Your task to perform on an android device: turn smart compose on in the gmail app Image 0: 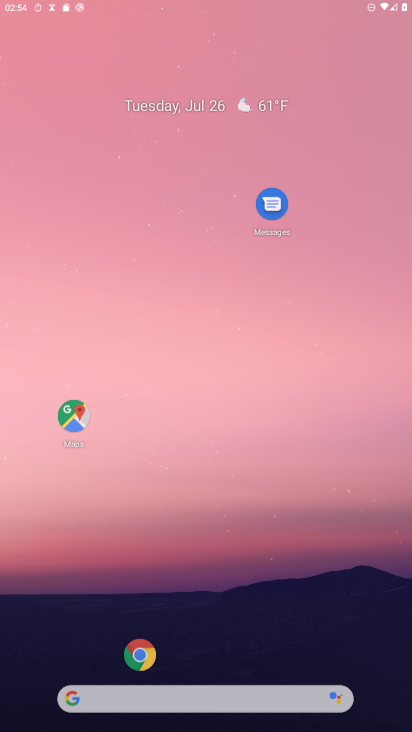
Step 0: press home button
Your task to perform on an android device: turn smart compose on in the gmail app Image 1: 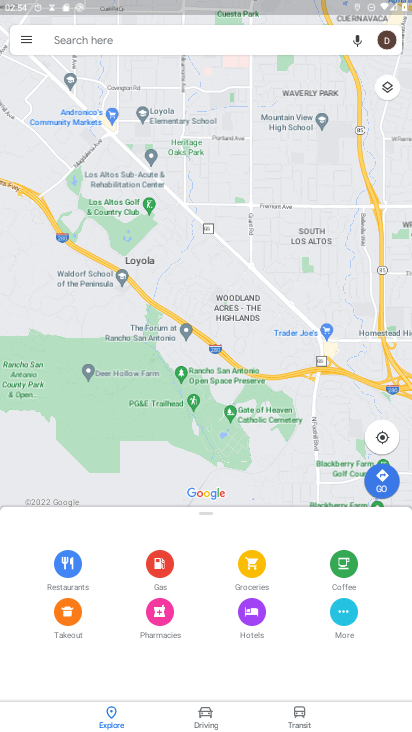
Step 1: drag from (36, 676) to (262, 64)
Your task to perform on an android device: turn smart compose on in the gmail app Image 2: 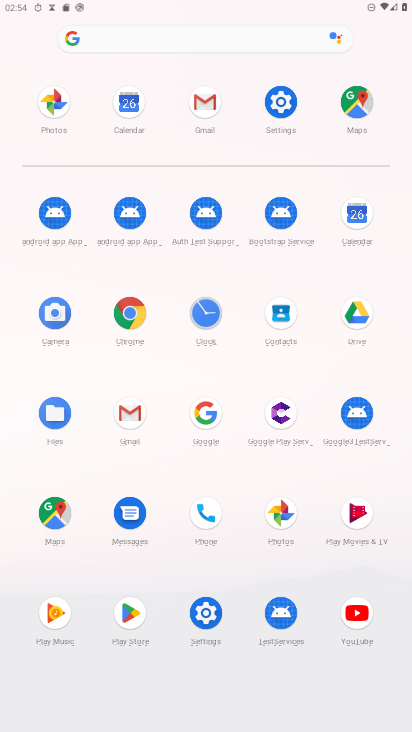
Step 2: click (137, 408)
Your task to perform on an android device: turn smart compose on in the gmail app Image 3: 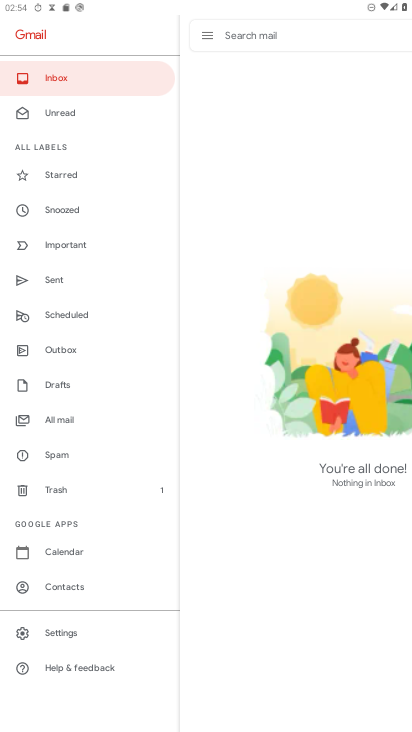
Step 3: click (70, 625)
Your task to perform on an android device: turn smart compose on in the gmail app Image 4: 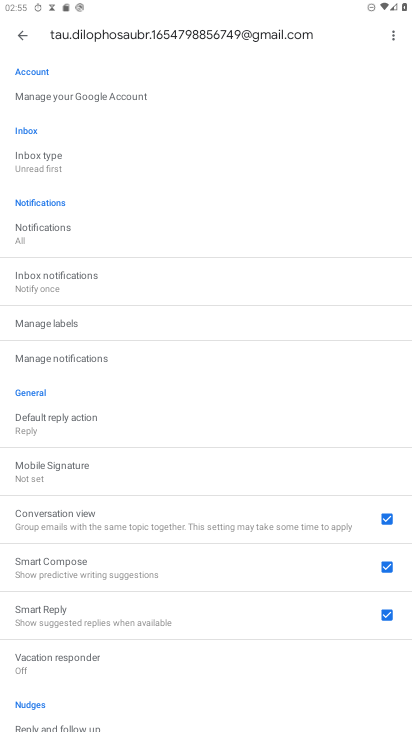
Step 4: task complete